Your task to perform on an android device: Search for vegetarian restaurants on Maps Image 0: 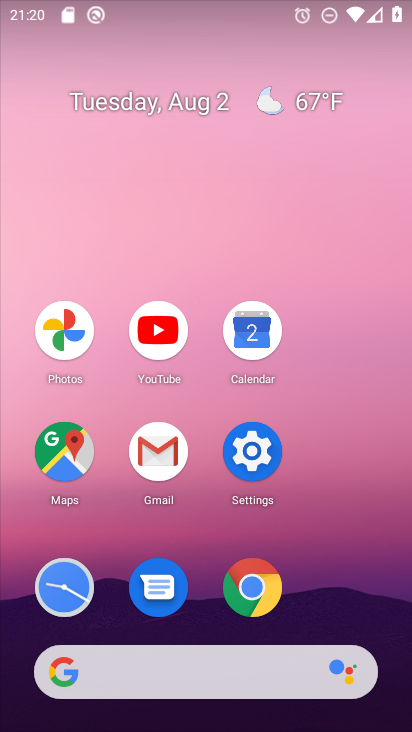
Step 0: click (61, 449)
Your task to perform on an android device: Search for vegetarian restaurants on Maps Image 1: 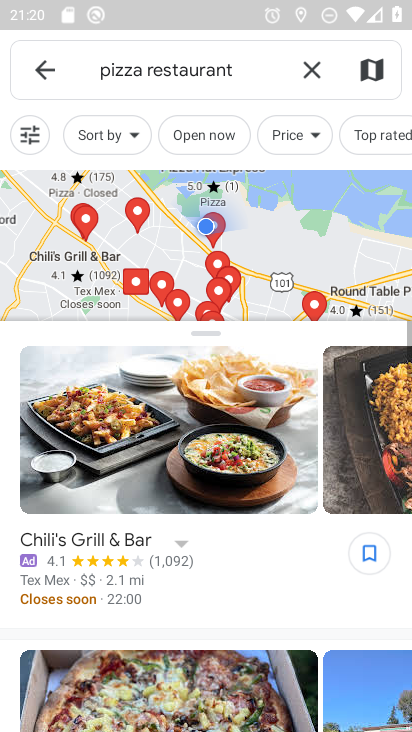
Step 1: click (308, 70)
Your task to perform on an android device: Search for vegetarian restaurants on Maps Image 2: 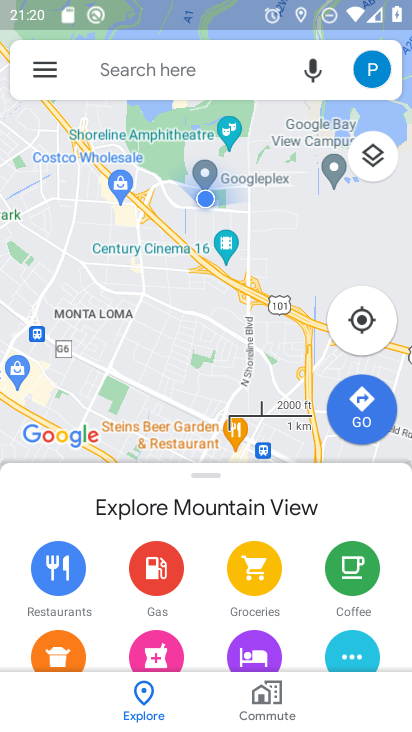
Step 2: click (173, 59)
Your task to perform on an android device: Search for vegetarian restaurants on Maps Image 3: 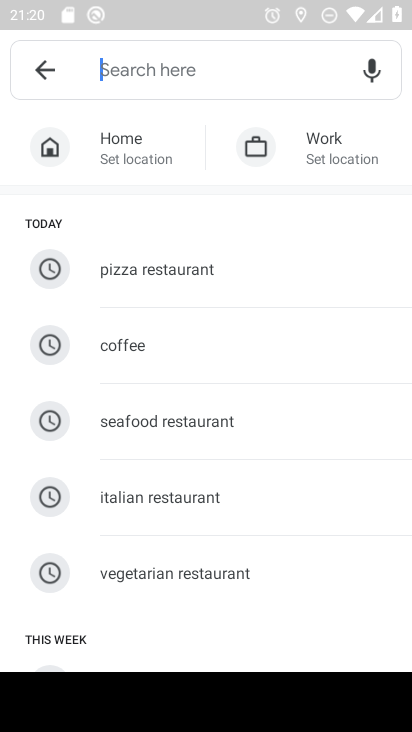
Step 3: click (190, 566)
Your task to perform on an android device: Search for vegetarian restaurants on Maps Image 4: 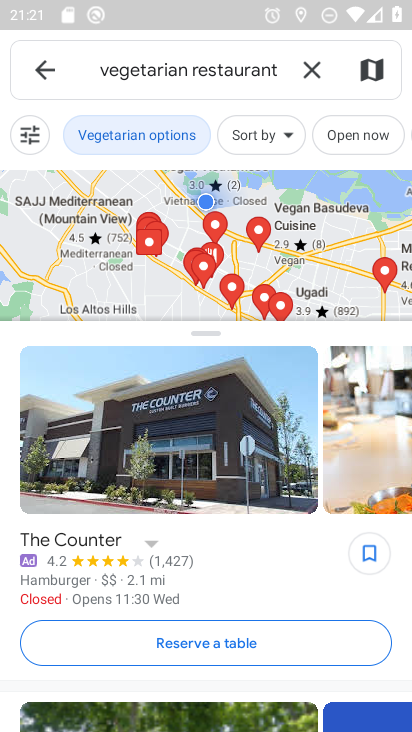
Step 4: task complete